Your task to perform on an android device: toggle notifications settings in the gmail app Image 0: 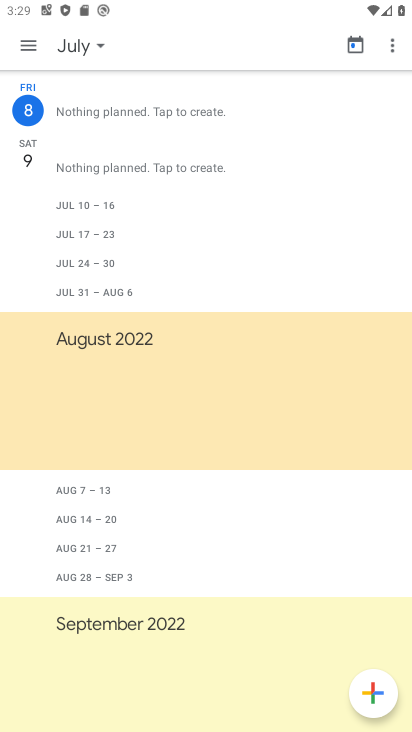
Step 0: drag from (254, 616) to (299, 241)
Your task to perform on an android device: toggle notifications settings in the gmail app Image 1: 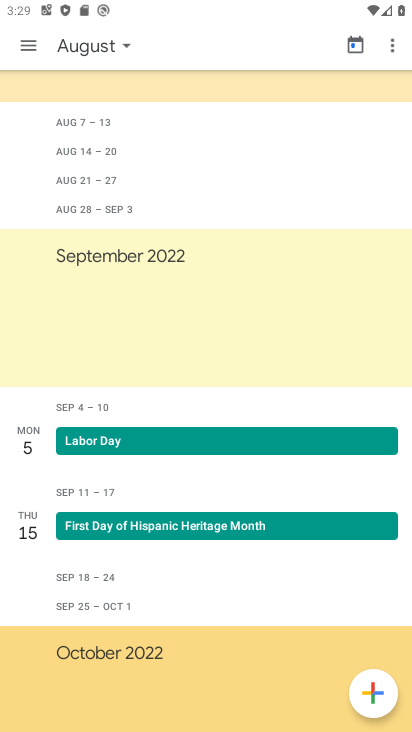
Step 1: press home button
Your task to perform on an android device: toggle notifications settings in the gmail app Image 2: 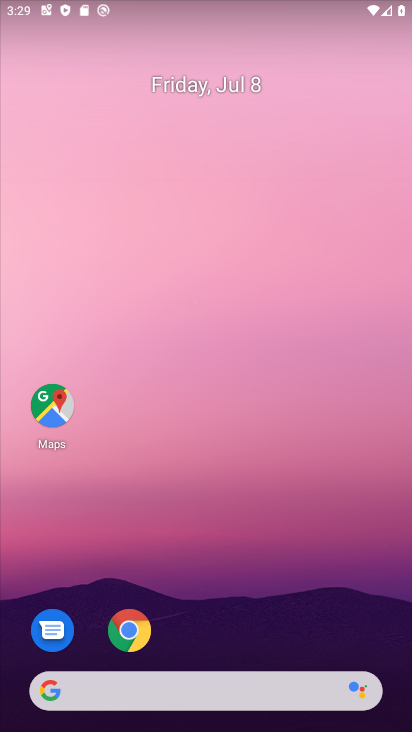
Step 2: drag from (249, 612) to (287, 183)
Your task to perform on an android device: toggle notifications settings in the gmail app Image 3: 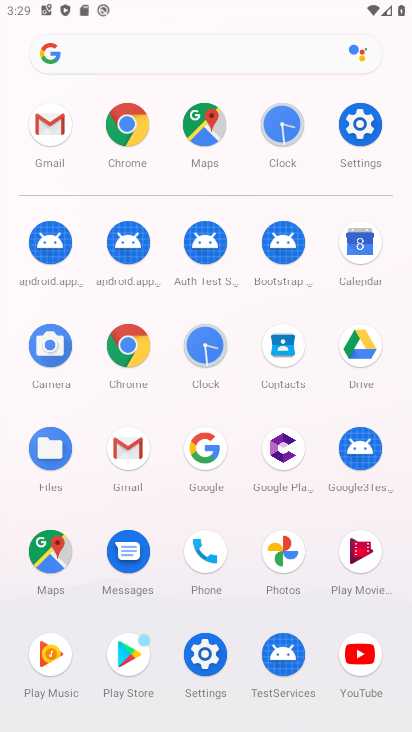
Step 3: click (60, 119)
Your task to perform on an android device: toggle notifications settings in the gmail app Image 4: 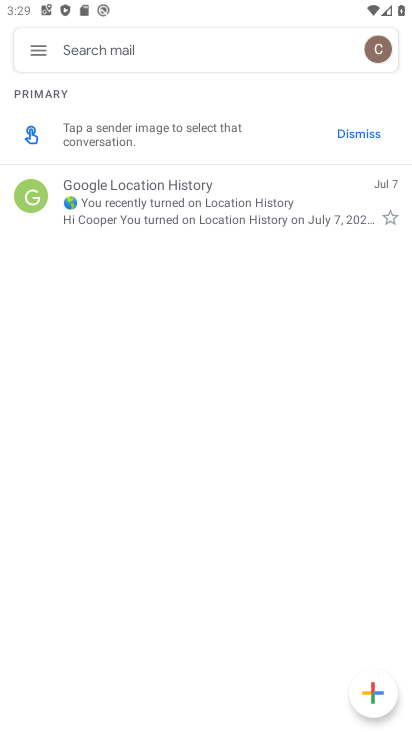
Step 4: click (37, 60)
Your task to perform on an android device: toggle notifications settings in the gmail app Image 5: 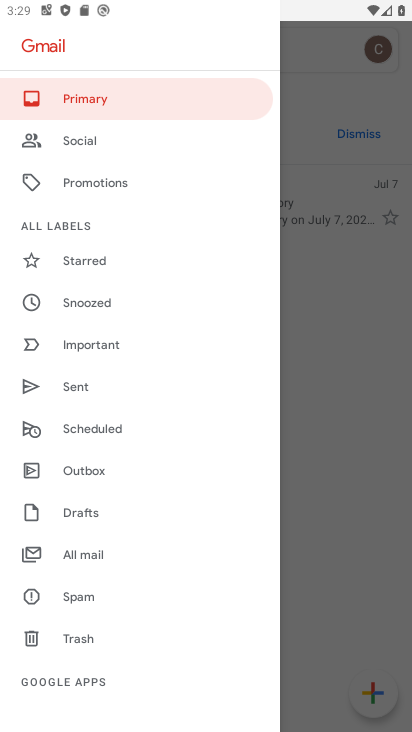
Step 5: drag from (140, 592) to (158, 308)
Your task to perform on an android device: toggle notifications settings in the gmail app Image 6: 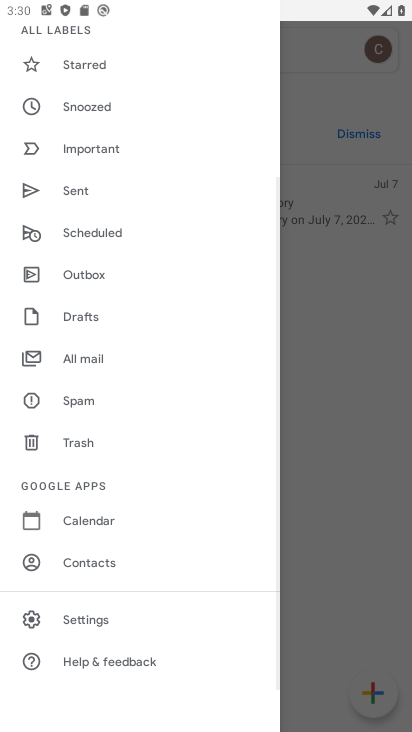
Step 6: click (129, 616)
Your task to perform on an android device: toggle notifications settings in the gmail app Image 7: 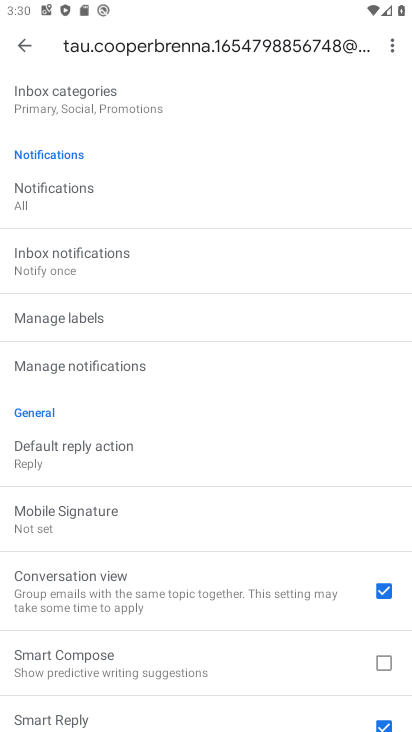
Step 7: click (134, 203)
Your task to perform on an android device: toggle notifications settings in the gmail app Image 8: 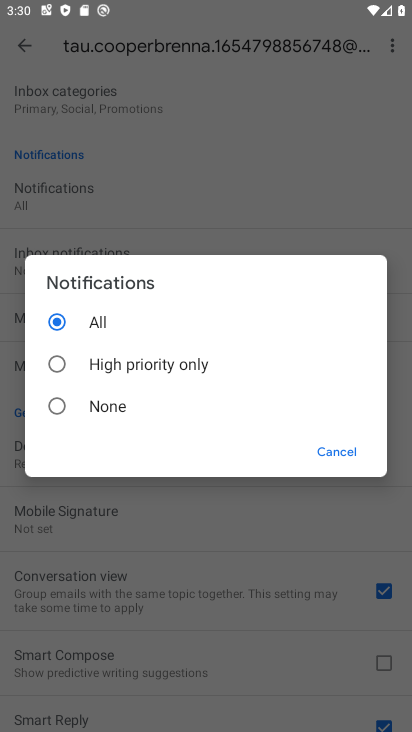
Step 8: click (175, 328)
Your task to perform on an android device: toggle notifications settings in the gmail app Image 9: 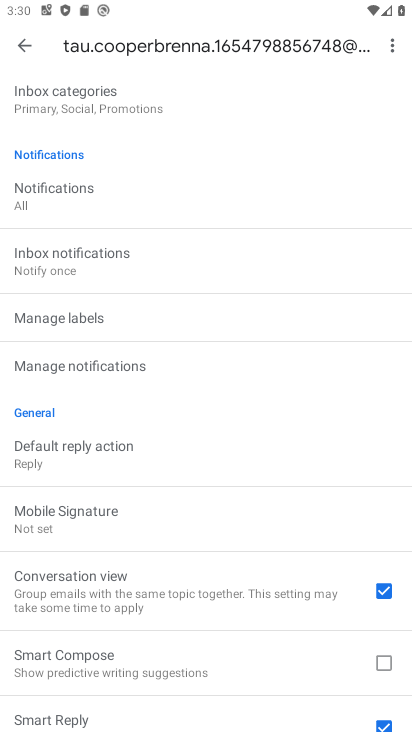
Step 9: task complete